Your task to perform on an android device: open app "Adobe Express: Graphic Design" (install if not already installed) and enter user name: "deliveries@gmail.com" and password: "regimentation" Image 0: 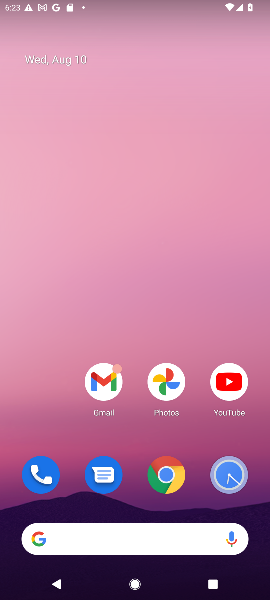
Step 0: drag from (102, 470) to (143, 112)
Your task to perform on an android device: open app "Adobe Express: Graphic Design" (install if not already installed) and enter user name: "deliveries@gmail.com" and password: "regimentation" Image 1: 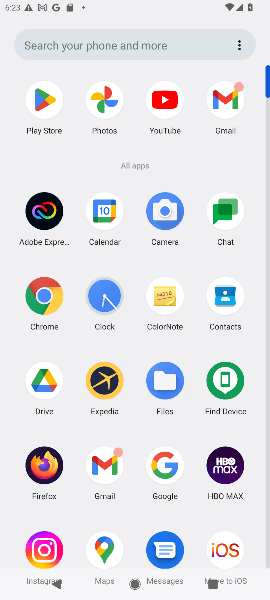
Step 1: click (38, 97)
Your task to perform on an android device: open app "Adobe Express: Graphic Design" (install if not already installed) and enter user name: "deliveries@gmail.com" and password: "regimentation" Image 2: 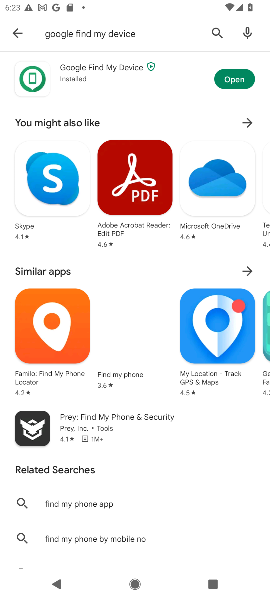
Step 2: click (214, 33)
Your task to perform on an android device: open app "Adobe Express: Graphic Design" (install if not already installed) and enter user name: "deliveries@gmail.com" and password: "regimentation" Image 3: 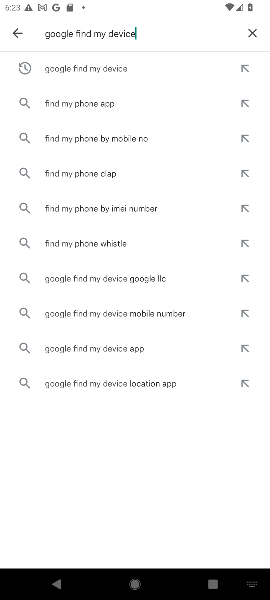
Step 3: click (254, 34)
Your task to perform on an android device: open app "Adobe Express: Graphic Design" (install if not already installed) and enter user name: "deliveries@gmail.com" and password: "regimentation" Image 4: 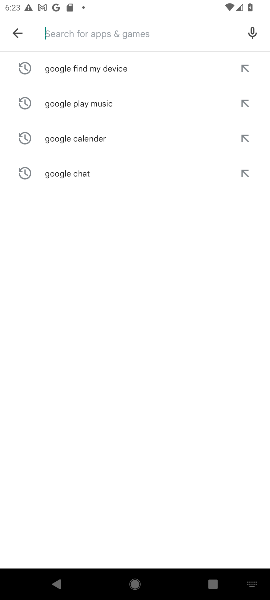
Step 4: type "Adobe Express: Graphic Design"
Your task to perform on an android device: open app "Adobe Express: Graphic Design" (install if not already installed) and enter user name: "deliveries@gmail.com" and password: "regimentation" Image 5: 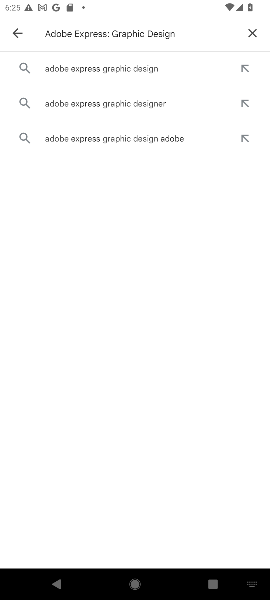
Step 5: click (145, 67)
Your task to perform on an android device: open app "Adobe Express: Graphic Design" (install if not already installed) and enter user name: "deliveries@gmail.com" and password: "regimentation" Image 6: 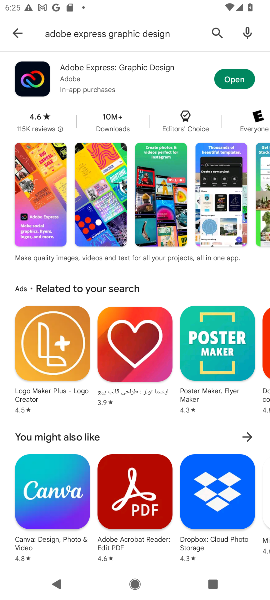
Step 6: click (169, 80)
Your task to perform on an android device: open app "Adobe Express: Graphic Design" (install if not already installed) and enter user name: "deliveries@gmail.com" and password: "regimentation" Image 7: 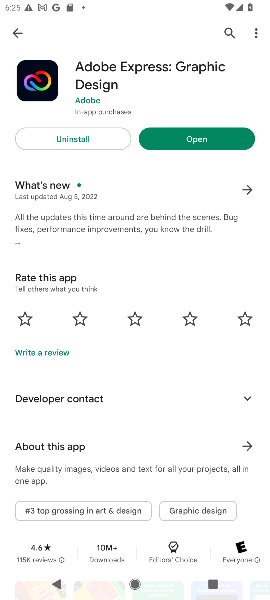
Step 7: click (191, 142)
Your task to perform on an android device: open app "Adobe Express: Graphic Design" (install if not already installed) and enter user name: "deliveries@gmail.com" and password: "regimentation" Image 8: 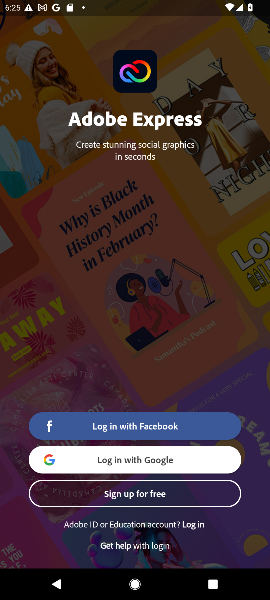
Step 8: click (135, 493)
Your task to perform on an android device: open app "Adobe Express: Graphic Design" (install if not already installed) and enter user name: "deliveries@gmail.com" and password: "regimentation" Image 9: 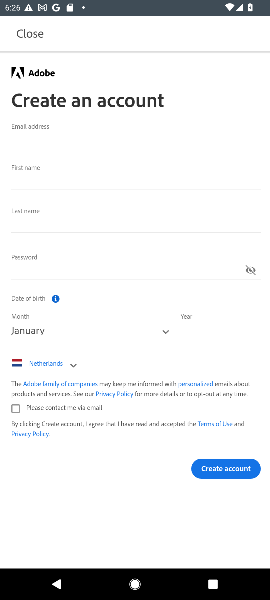
Step 9: task complete